Your task to perform on an android device: Open the map Image 0: 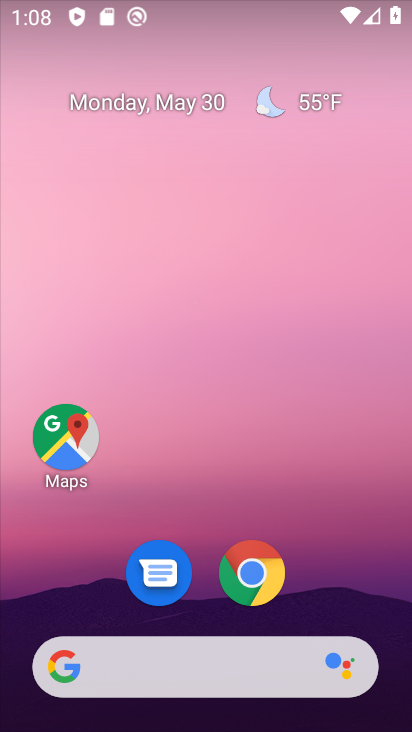
Step 0: click (62, 442)
Your task to perform on an android device: Open the map Image 1: 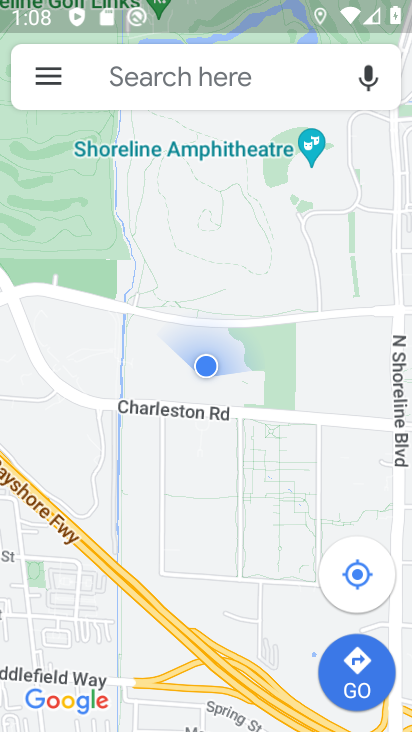
Step 1: task complete